Your task to perform on an android device: open the mobile data screen to see how much data has been used Image 0: 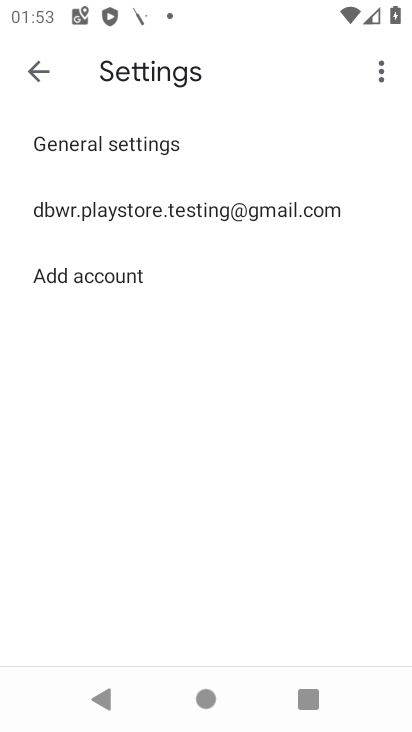
Step 0: press home button
Your task to perform on an android device: open the mobile data screen to see how much data has been used Image 1: 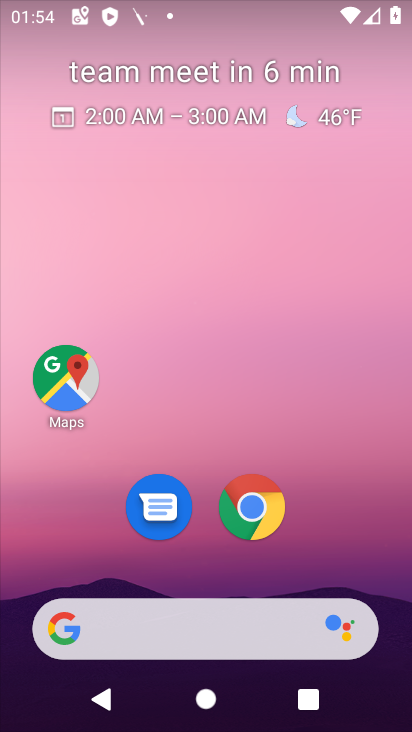
Step 1: drag from (289, 657) to (284, 228)
Your task to perform on an android device: open the mobile data screen to see how much data has been used Image 2: 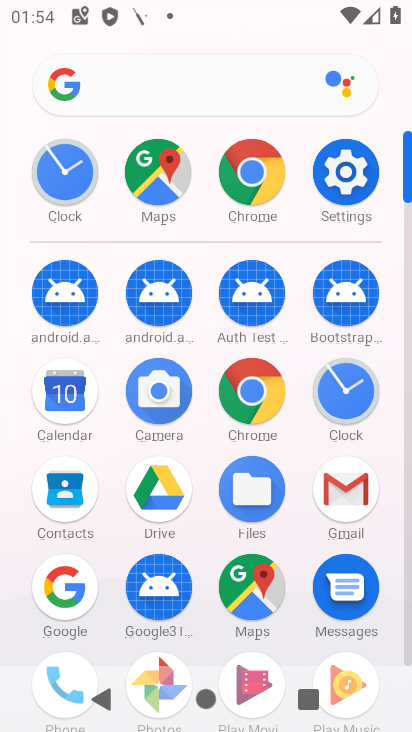
Step 2: click (329, 177)
Your task to perform on an android device: open the mobile data screen to see how much data has been used Image 3: 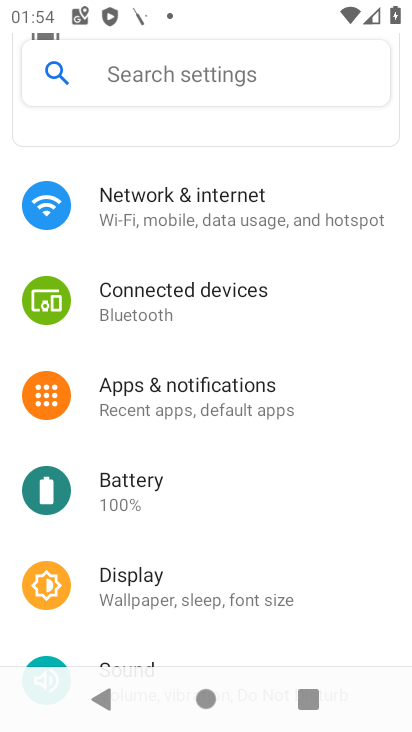
Step 3: click (214, 73)
Your task to perform on an android device: open the mobile data screen to see how much data has been used Image 4: 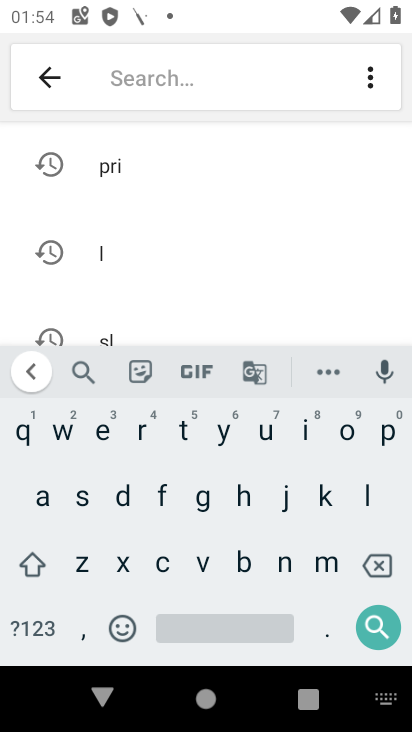
Step 4: click (119, 496)
Your task to perform on an android device: open the mobile data screen to see how much data has been used Image 5: 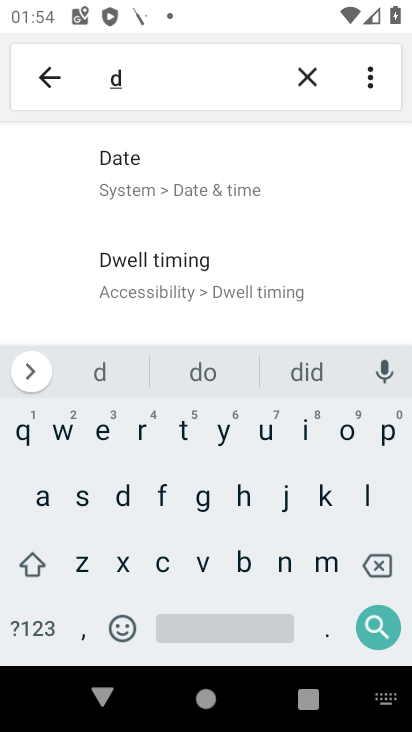
Step 5: click (39, 489)
Your task to perform on an android device: open the mobile data screen to see how much data has been used Image 6: 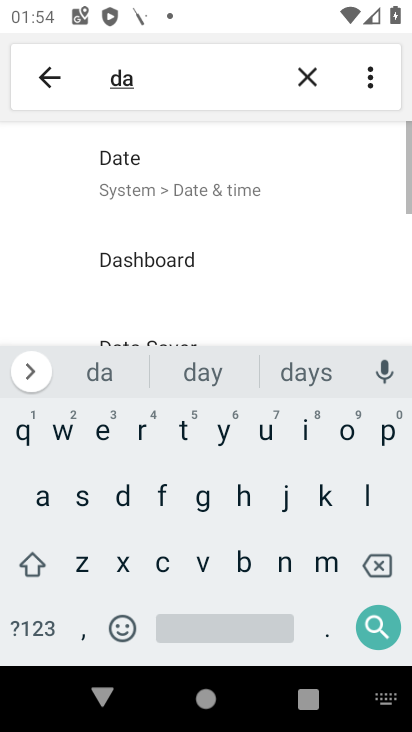
Step 6: click (184, 428)
Your task to perform on an android device: open the mobile data screen to see how much data has been used Image 7: 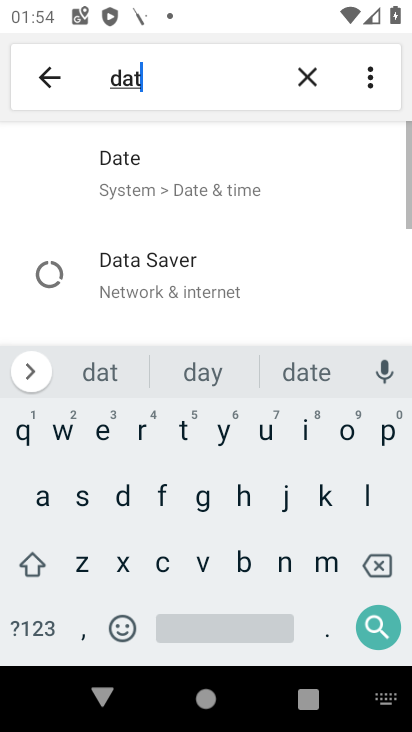
Step 7: click (42, 503)
Your task to perform on an android device: open the mobile data screen to see how much data has been used Image 8: 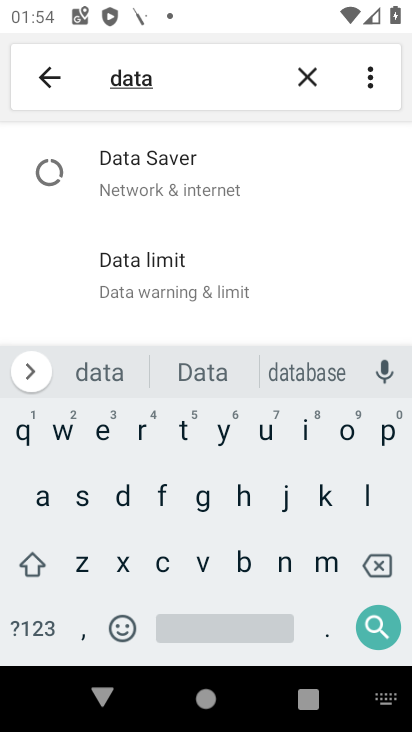
Step 8: click (199, 632)
Your task to perform on an android device: open the mobile data screen to see how much data has been used Image 9: 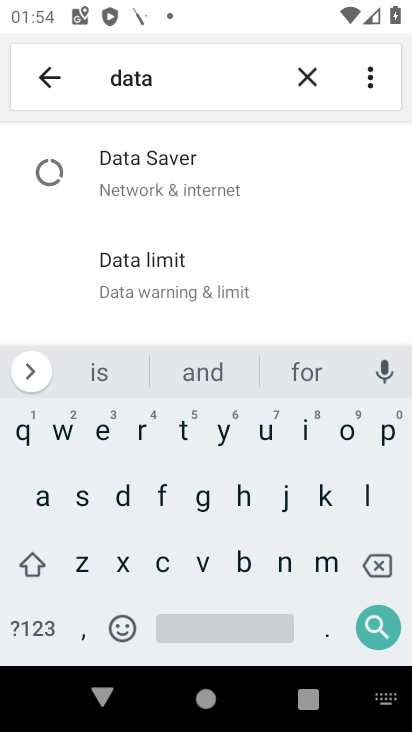
Step 9: click (261, 424)
Your task to perform on an android device: open the mobile data screen to see how much data has been used Image 10: 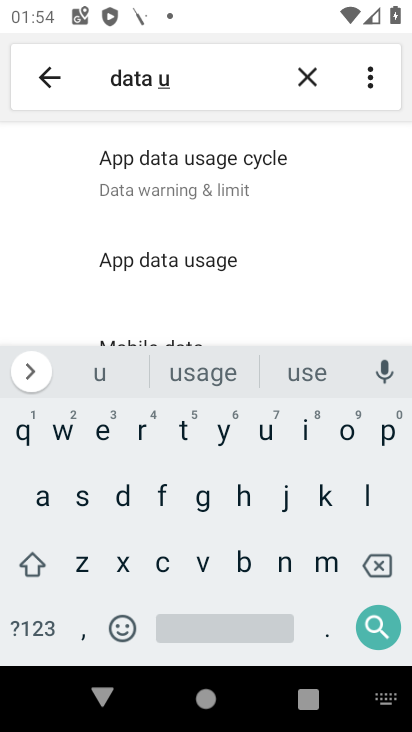
Step 10: click (170, 272)
Your task to perform on an android device: open the mobile data screen to see how much data has been used Image 11: 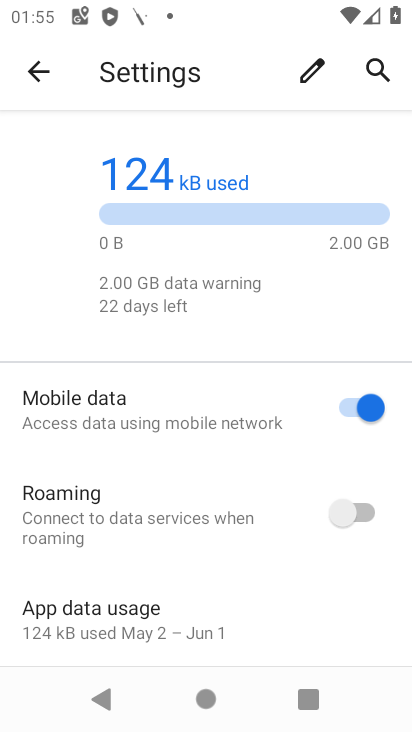
Step 11: click (131, 612)
Your task to perform on an android device: open the mobile data screen to see how much data has been used Image 12: 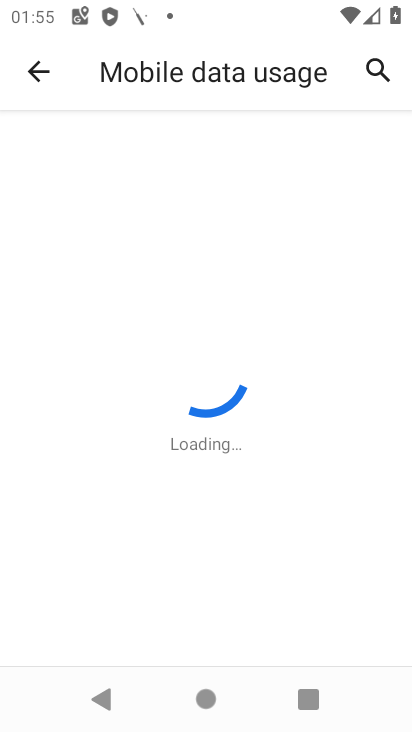
Step 12: task complete